Your task to perform on an android device: change the upload size in google photos Image 0: 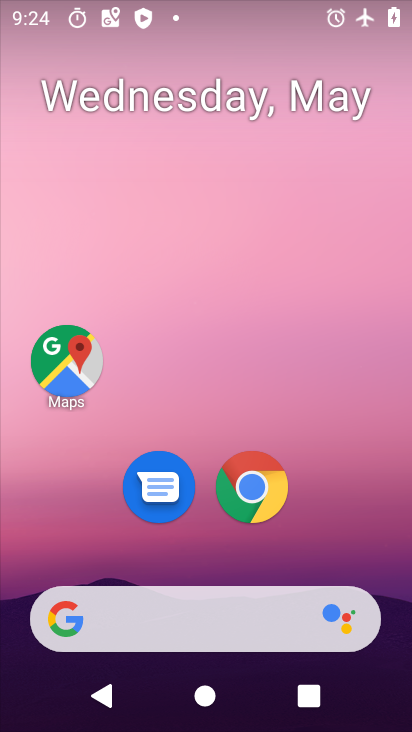
Step 0: drag from (221, 547) to (258, 198)
Your task to perform on an android device: change the upload size in google photos Image 1: 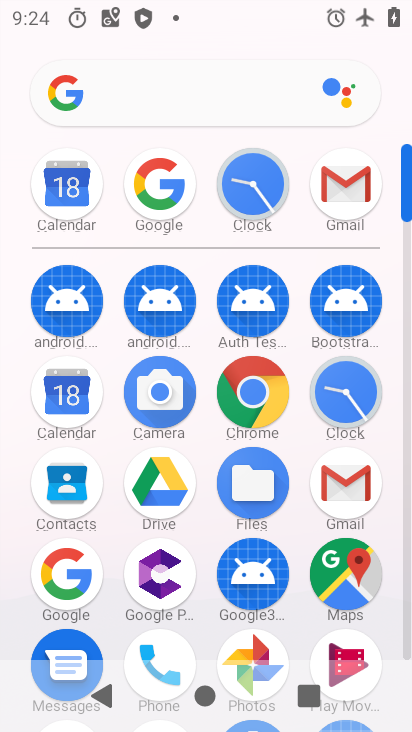
Step 1: click (243, 636)
Your task to perform on an android device: change the upload size in google photos Image 2: 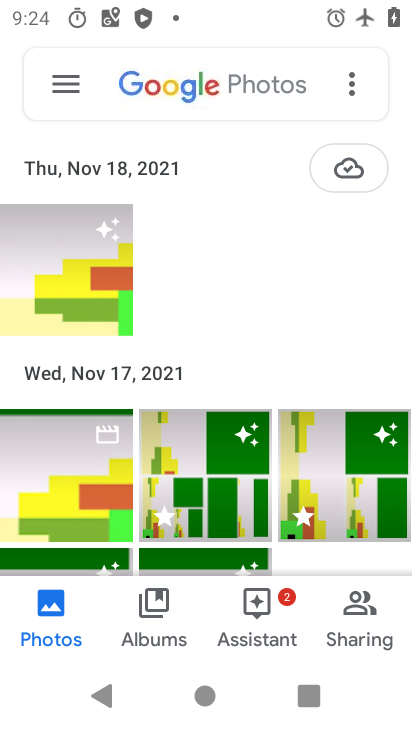
Step 2: click (44, 82)
Your task to perform on an android device: change the upload size in google photos Image 3: 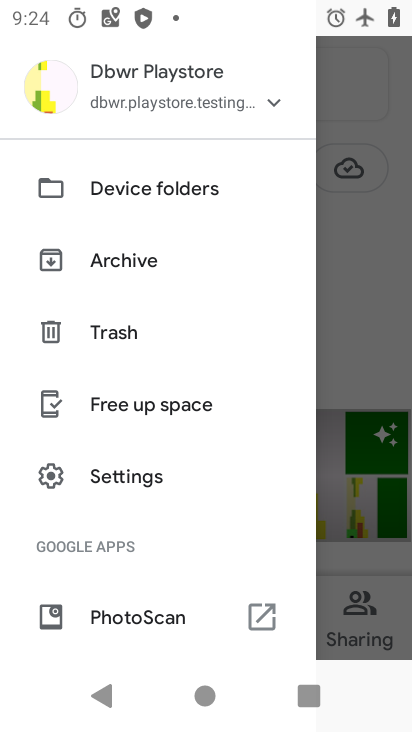
Step 3: click (142, 476)
Your task to perform on an android device: change the upload size in google photos Image 4: 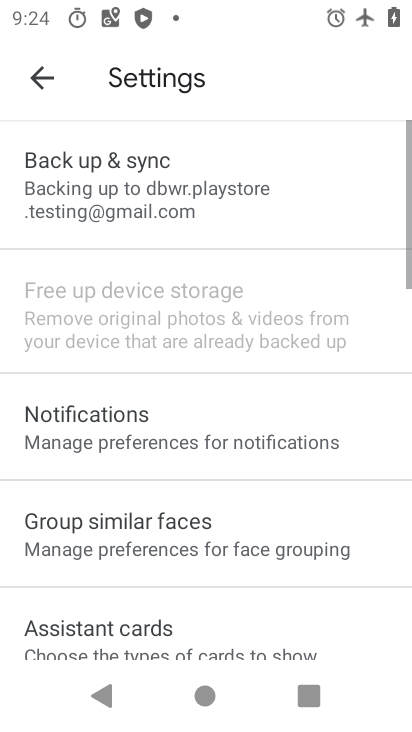
Step 4: click (130, 202)
Your task to perform on an android device: change the upload size in google photos Image 5: 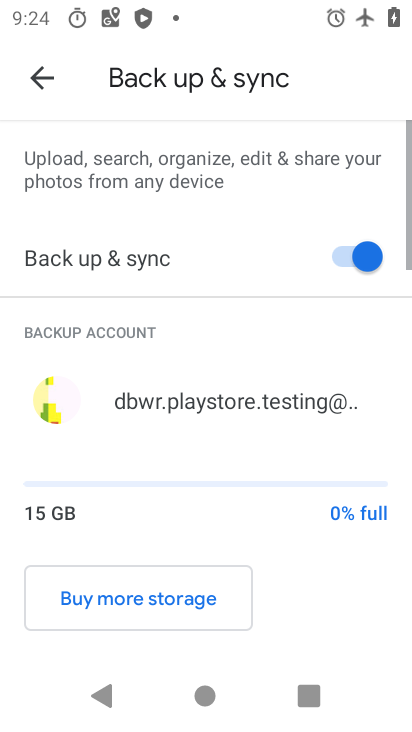
Step 5: drag from (182, 578) to (243, 268)
Your task to perform on an android device: change the upload size in google photos Image 6: 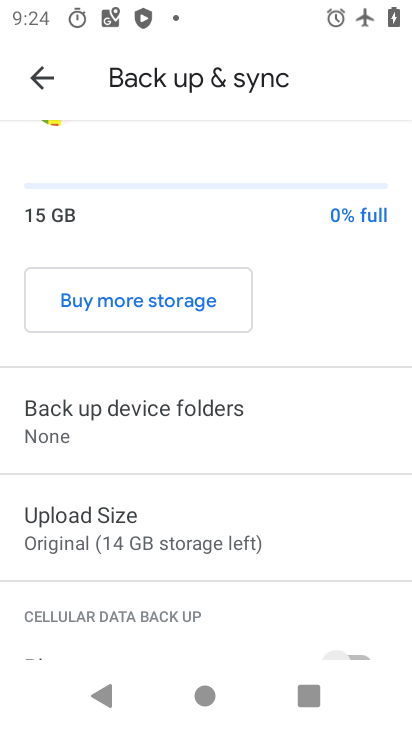
Step 6: click (149, 544)
Your task to perform on an android device: change the upload size in google photos Image 7: 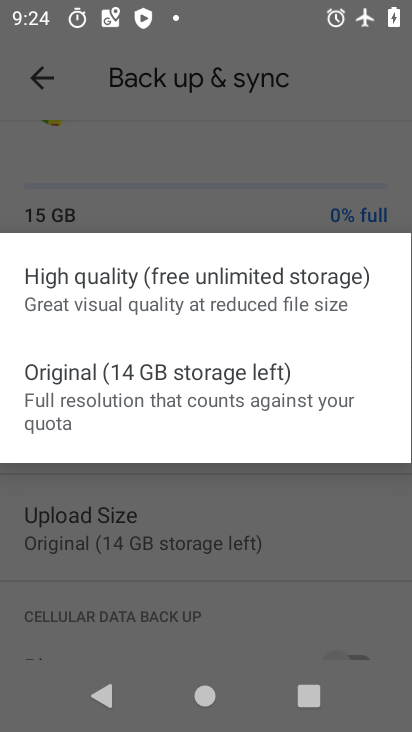
Step 7: click (123, 304)
Your task to perform on an android device: change the upload size in google photos Image 8: 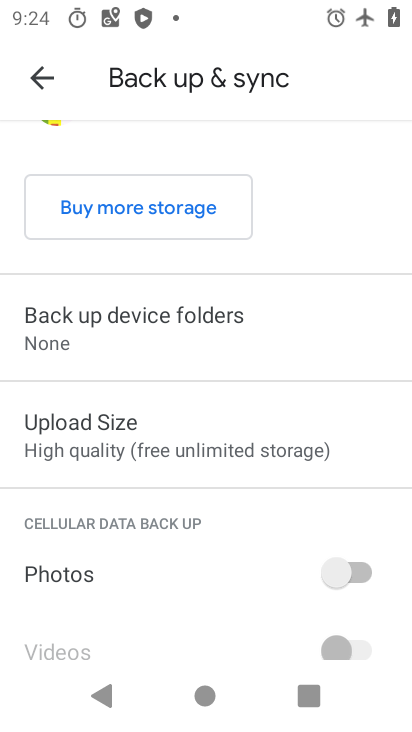
Step 8: task complete